Your task to perform on an android device: Clear all items from cart on ebay. Add sony triple a to the cart on ebay Image 0: 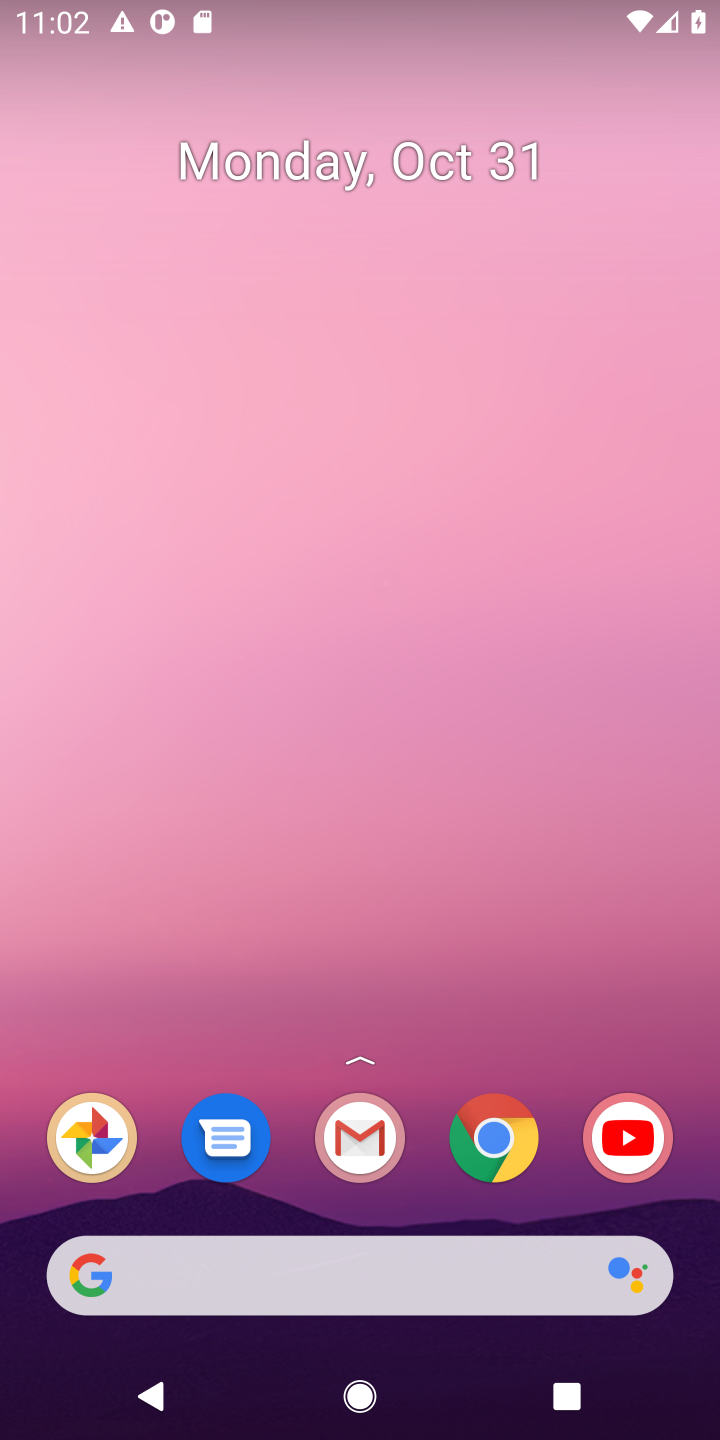
Step 0: press home button
Your task to perform on an android device: Clear all items from cart on ebay. Add sony triple a to the cart on ebay Image 1: 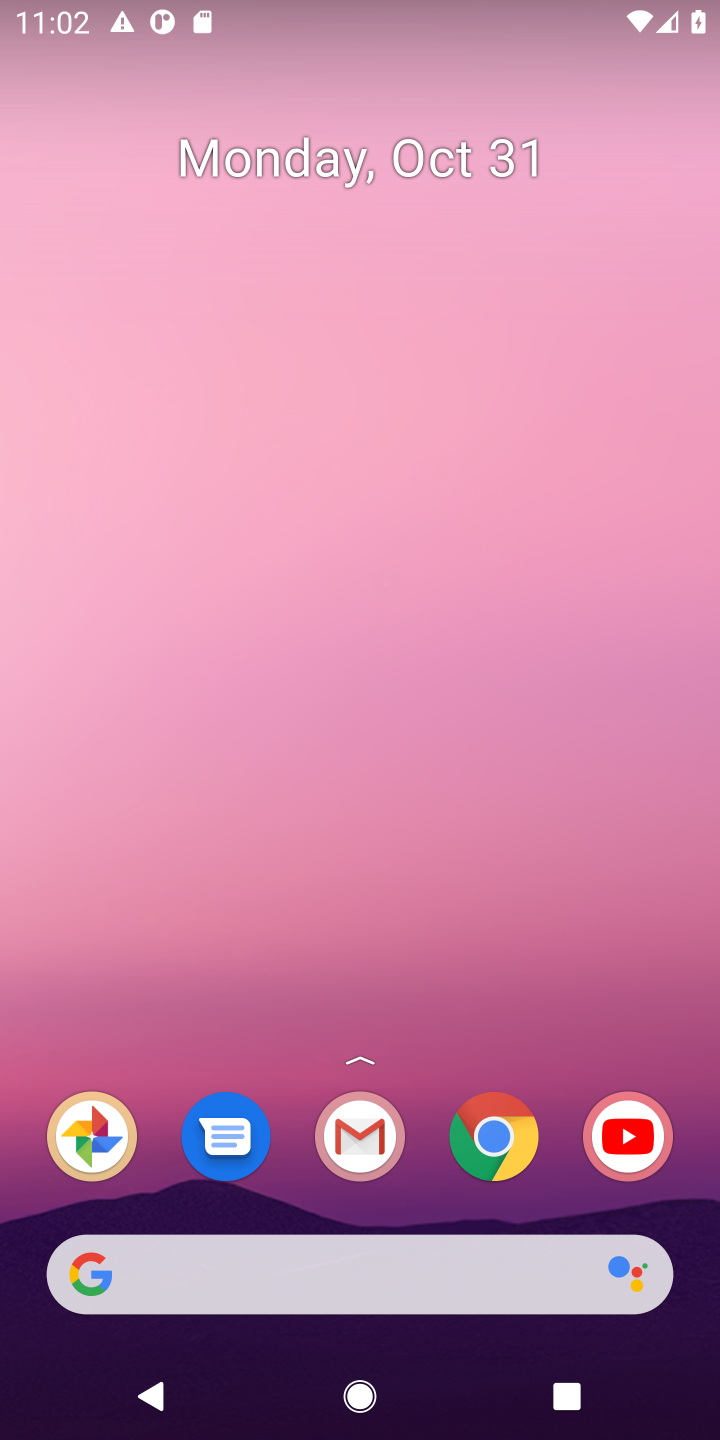
Step 1: click (136, 1269)
Your task to perform on an android device: Clear all items from cart on ebay. Add sony triple a to the cart on ebay Image 2: 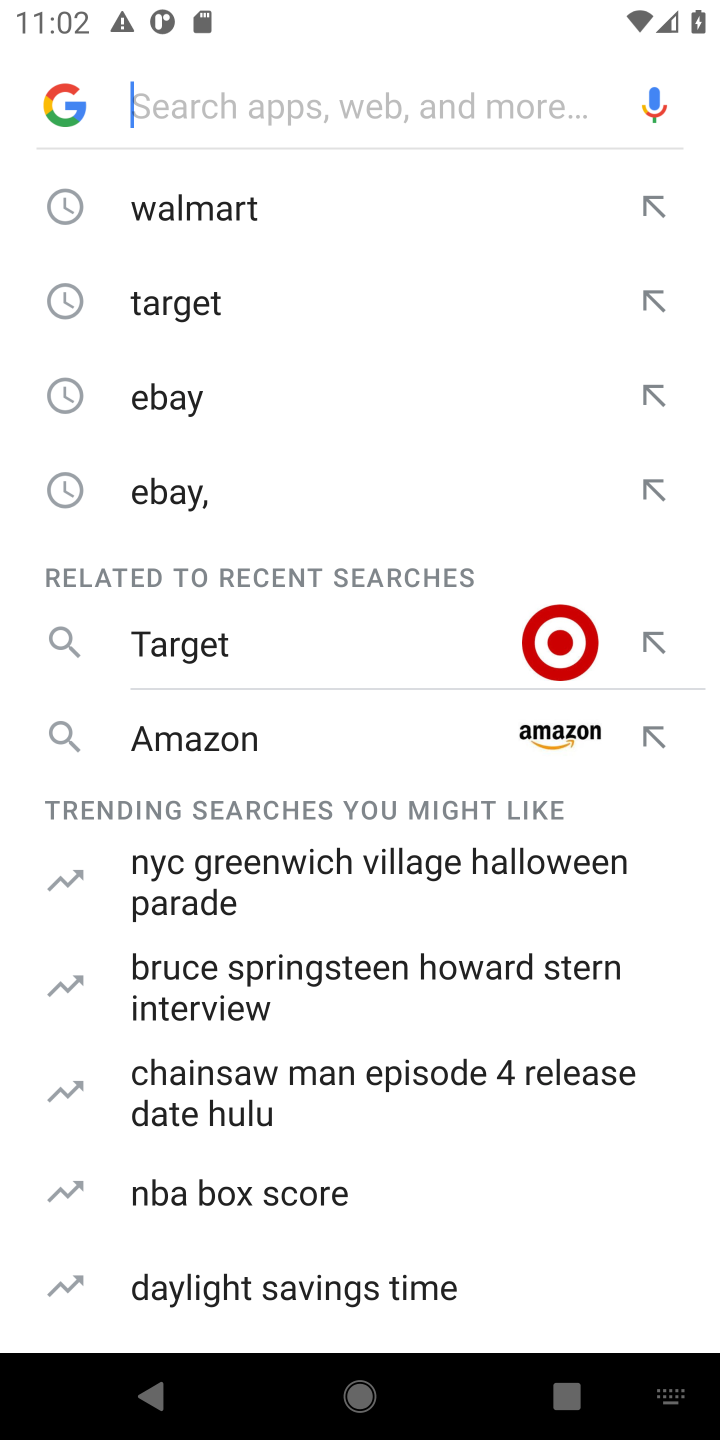
Step 2: press enter
Your task to perform on an android device: Clear all items from cart on ebay. Add sony triple a to the cart on ebay Image 3: 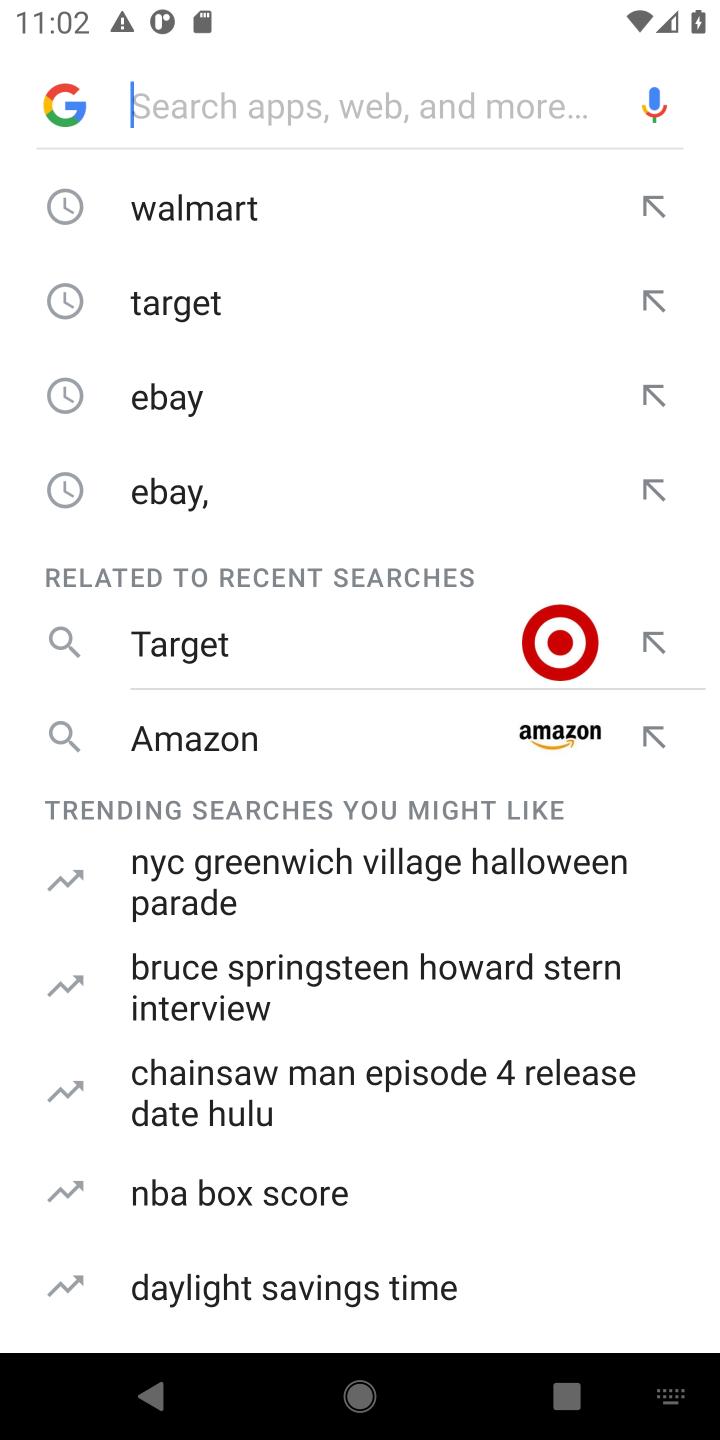
Step 3: type "ebay"
Your task to perform on an android device: Clear all items from cart on ebay. Add sony triple a to the cart on ebay Image 4: 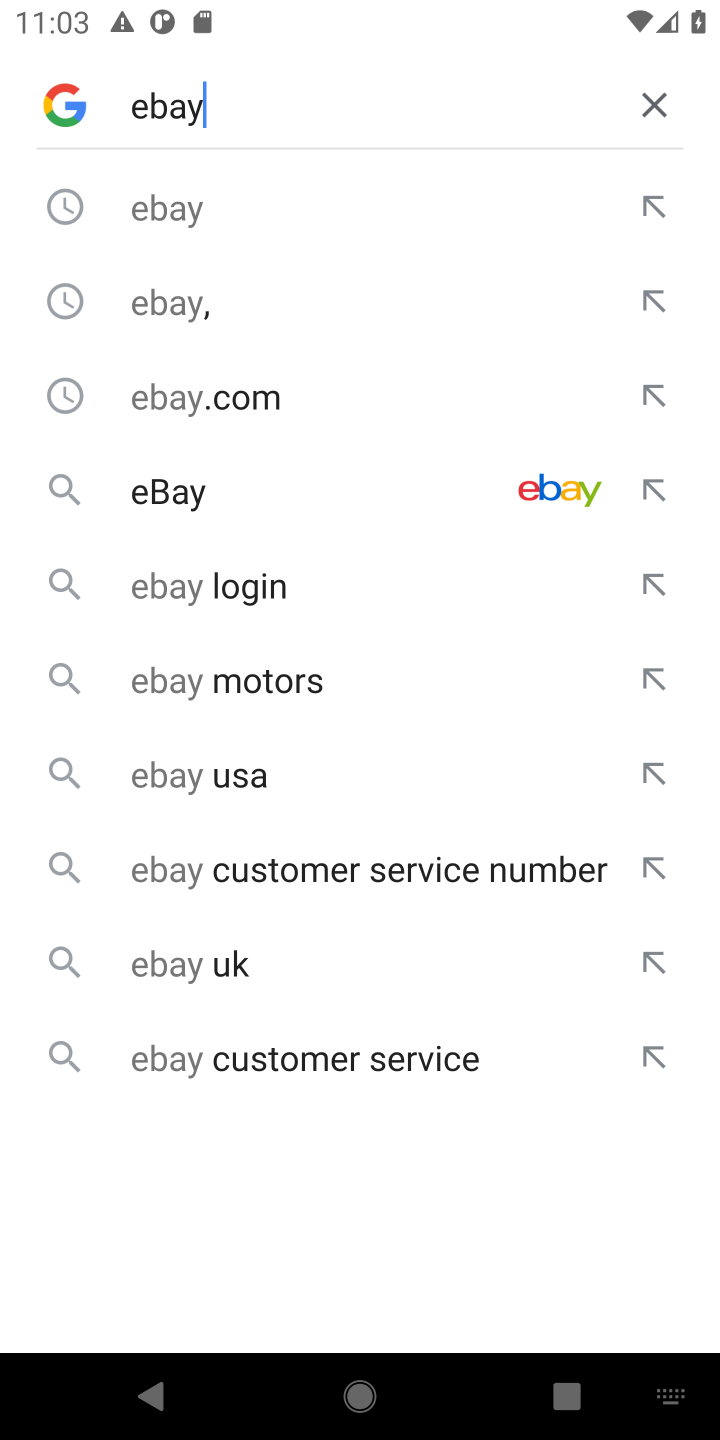
Step 4: press enter
Your task to perform on an android device: Clear all items from cart on ebay. Add sony triple a to the cart on ebay Image 5: 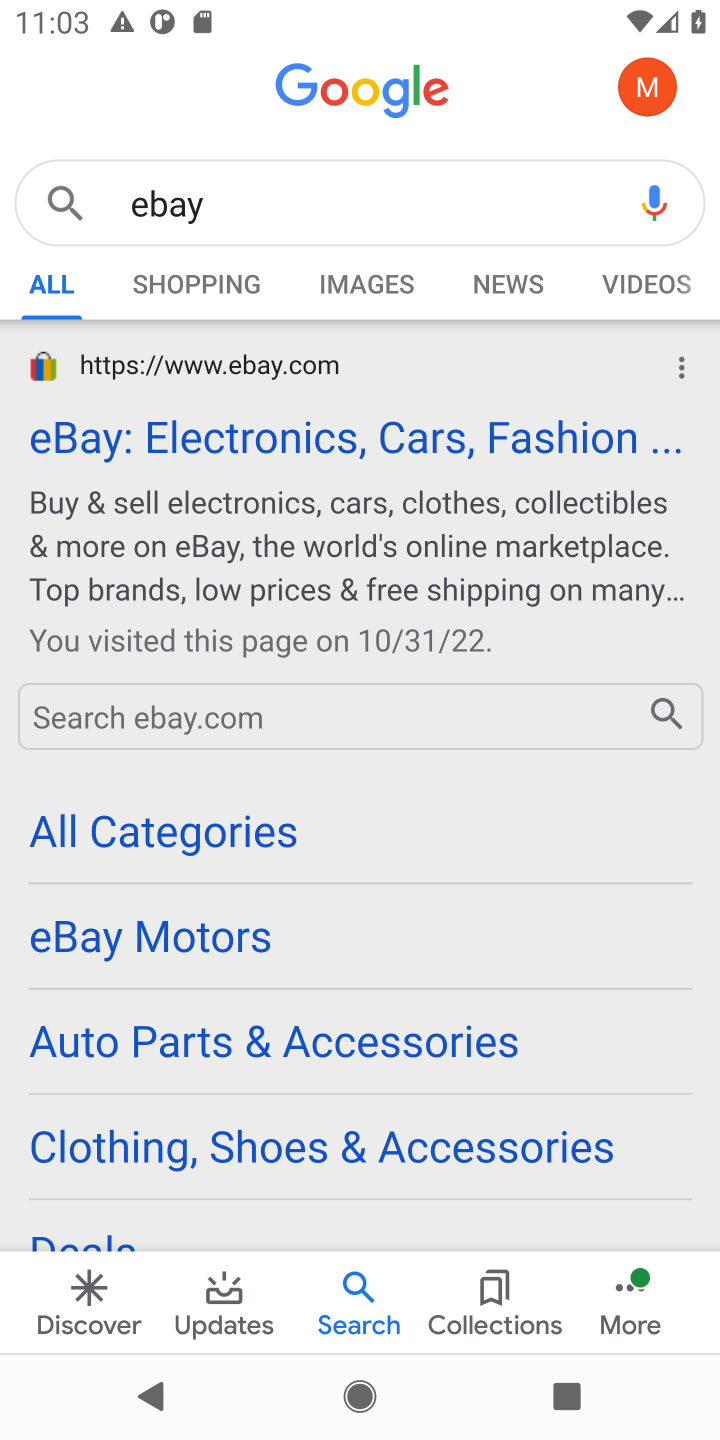
Step 5: click (199, 435)
Your task to perform on an android device: Clear all items from cart on ebay. Add sony triple a to the cart on ebay Image 6: 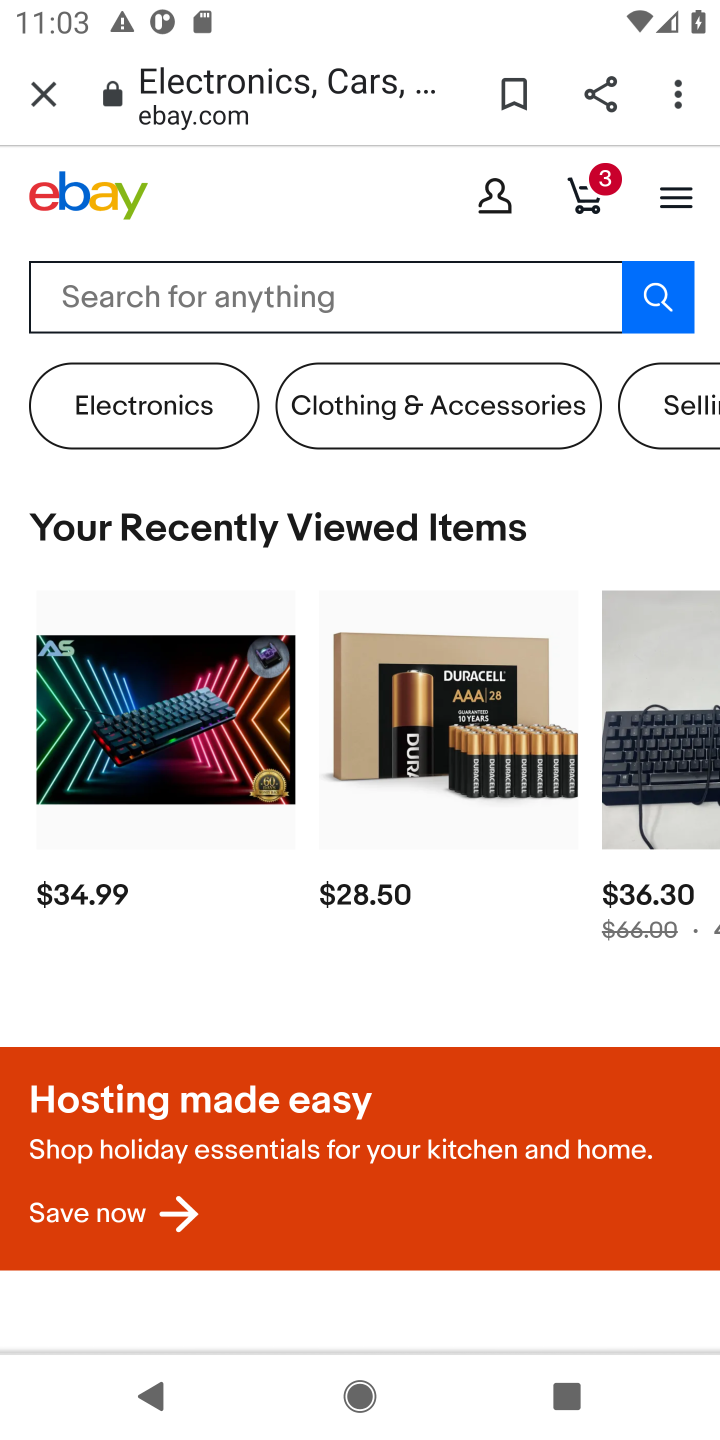
Step 6: click (608, 184)
Your task to perform on an android device: Clear all items from cart on ebay. Add sony triple a to the cart on ebay Image 7: 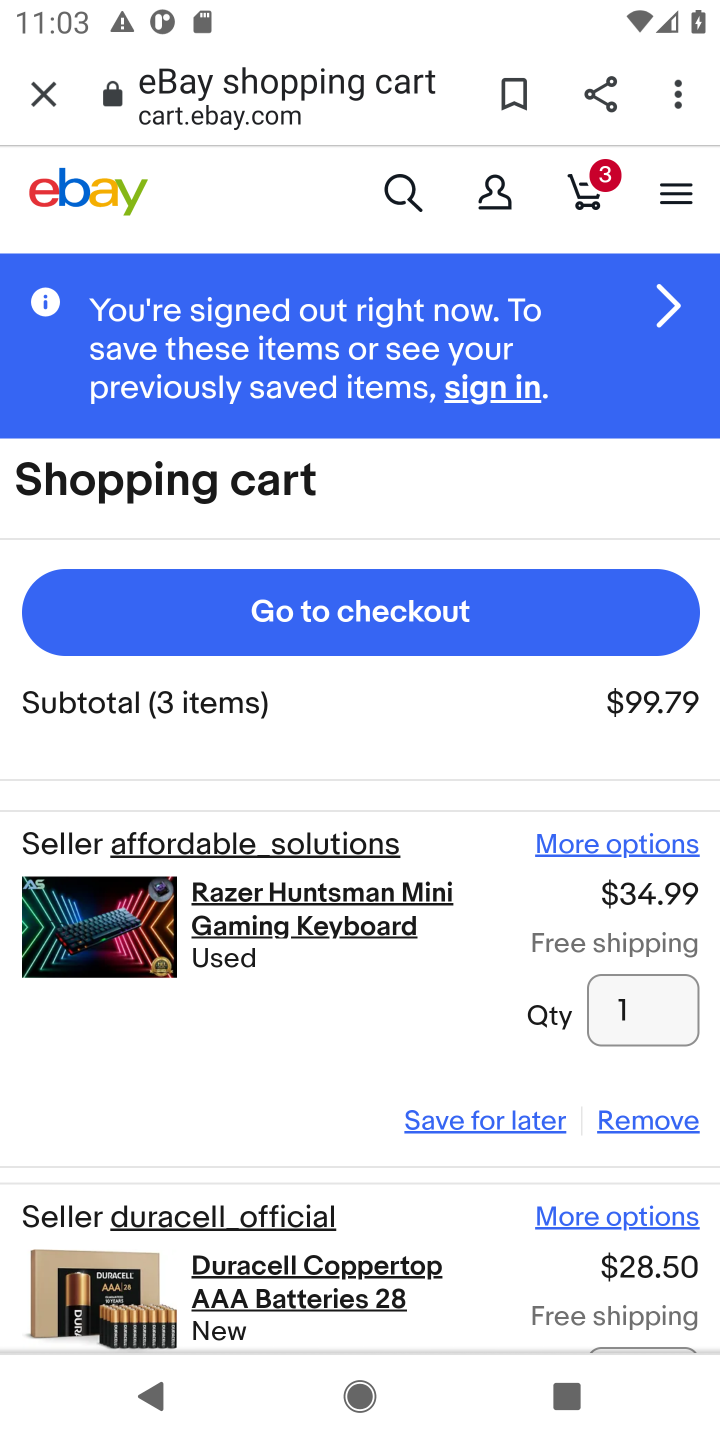
Step 7: click (633, 1123)
Your task to perform on an android device: Clear all items from cart on ebay. Add sony triple a to the cart on ebay Image 8: 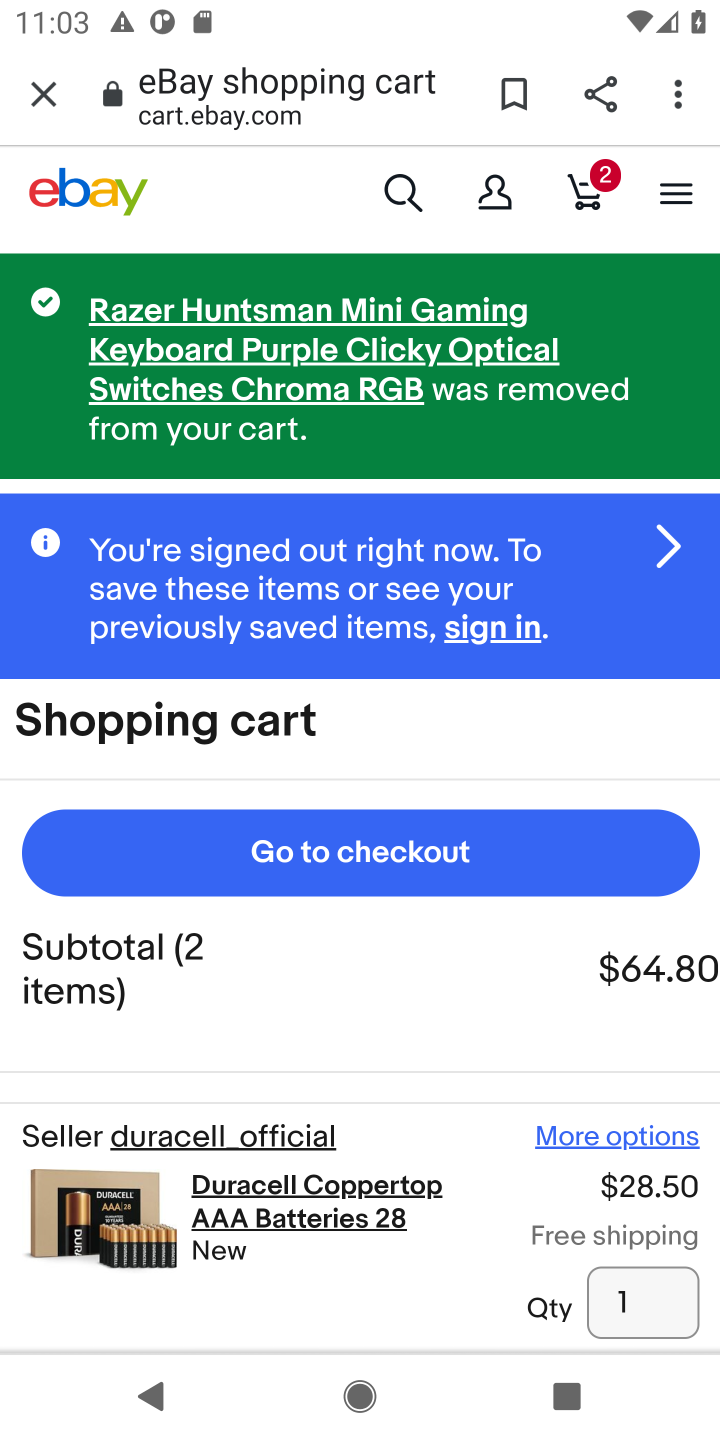
Step 8: drag from (407, 1280) to (438, 646)
Your task to perform on an android device: Clear all items from cart on ebay. Add sony triple a to the cart on ebay Image 9: 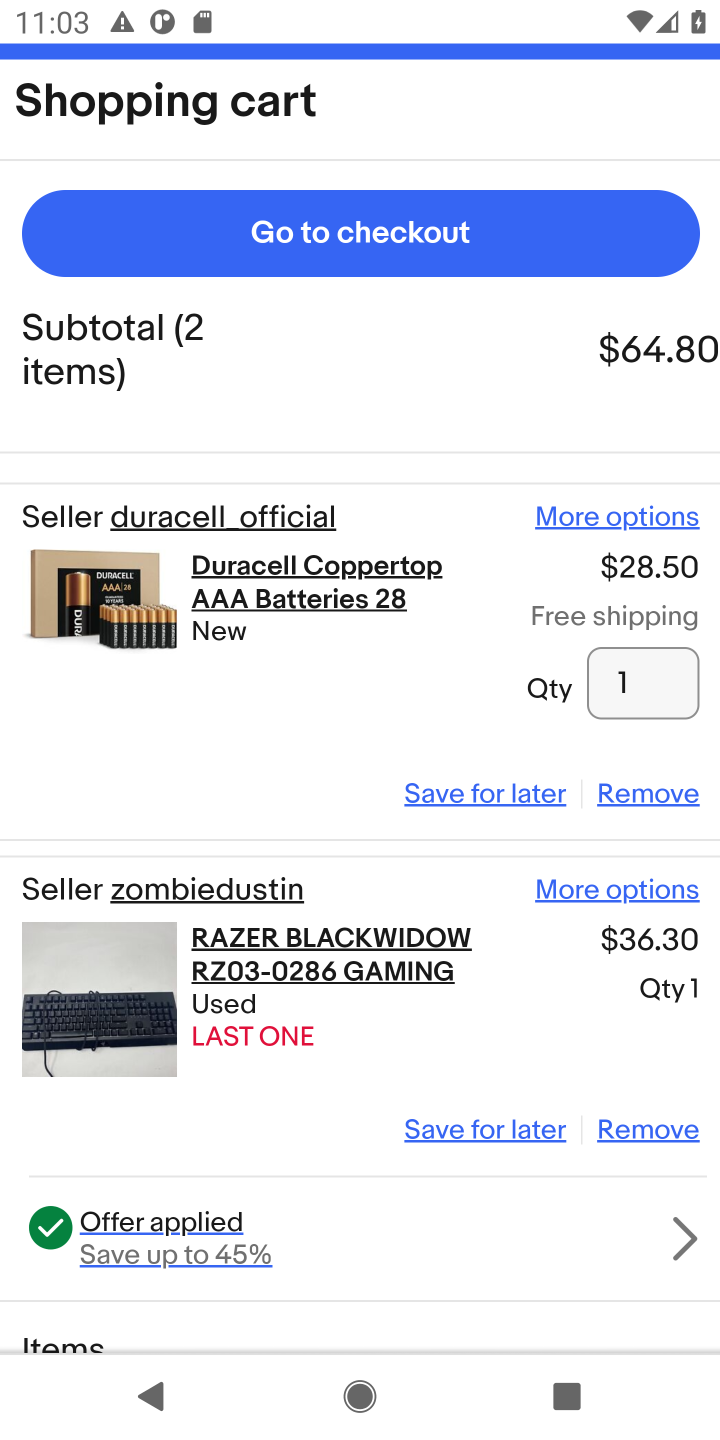
Step 9: click (642, 803)
Your task to perform on an android device: Clear all items from cart on ebay. Add sony triple a to the cart on ebay Image 10: 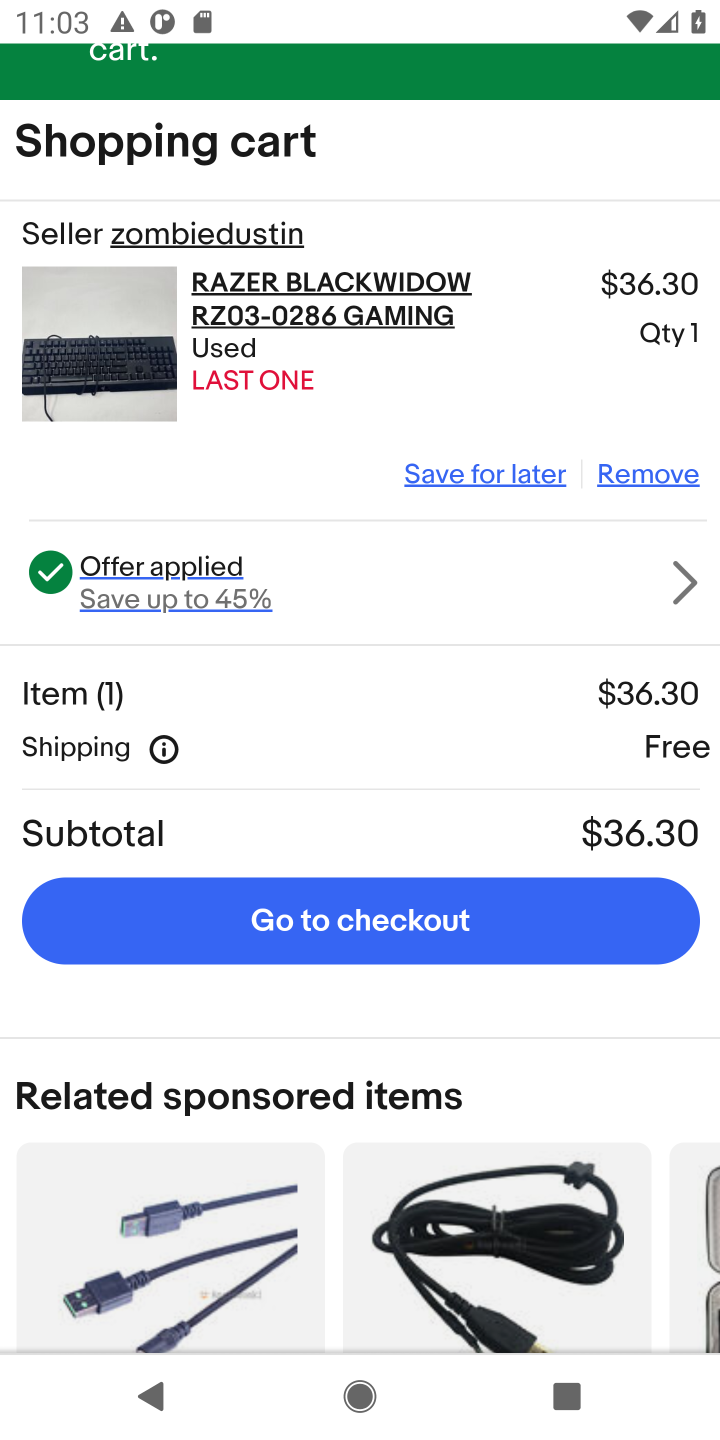
Step 10: click (631, 474)
Your task to perform on an android device: Clear all items from cart on ebay. Add sony triple a to the cart on ebay Image 11: 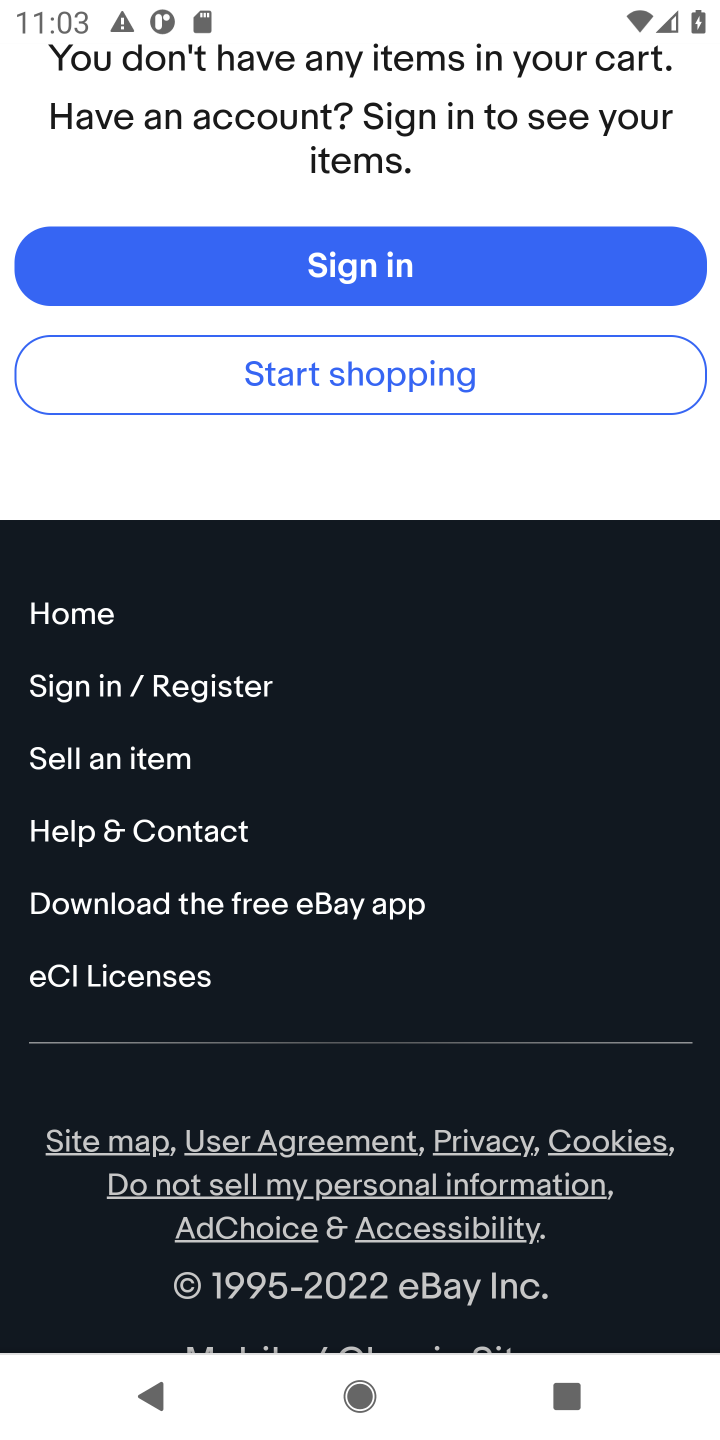
Step 11: drag from (487, 148) to (435, 995)
Your task to perform on an android device: Clear all items from cart on ebay. Add sony triple a to the cart on ebay Image 12: 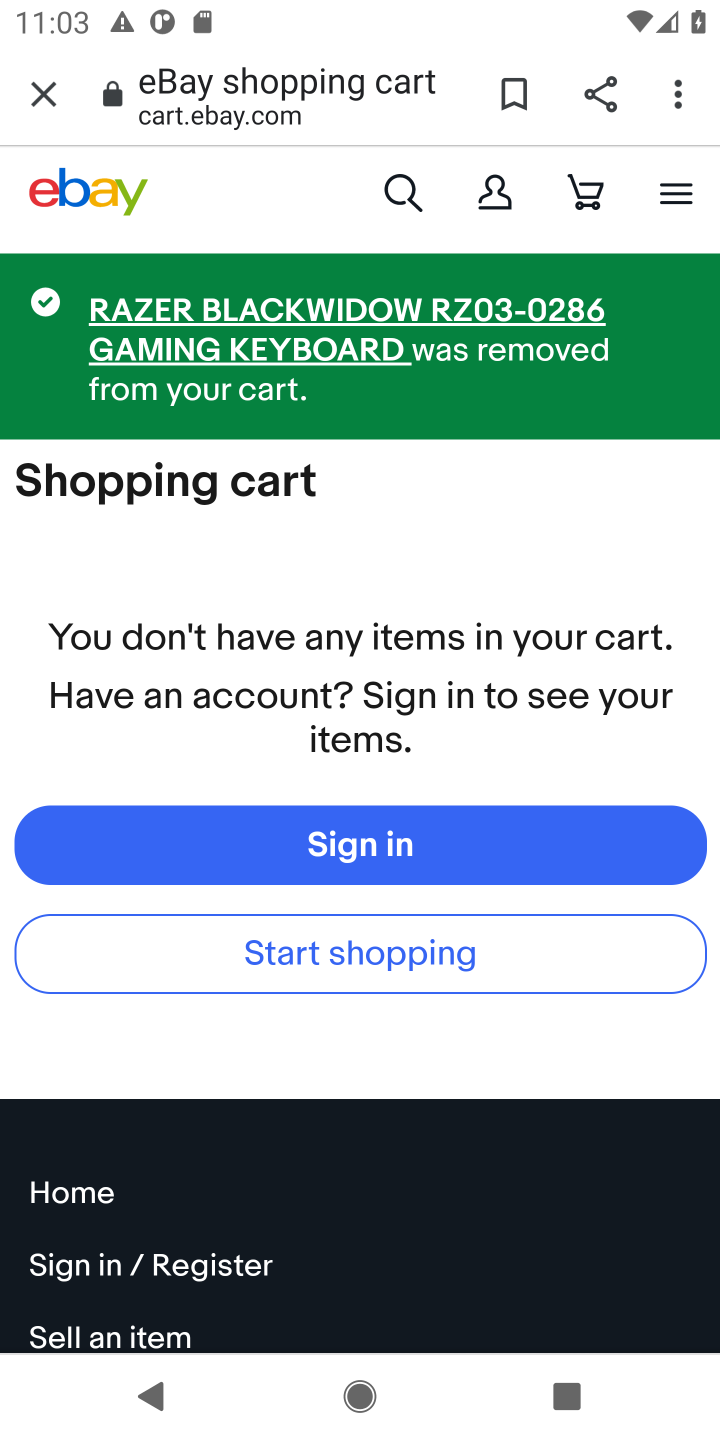
Step 12: click (399, 187)
Your task to perform on an android device: Clear all items from cart on ebay. Add sony triple a to the cart on ebay Image 13: 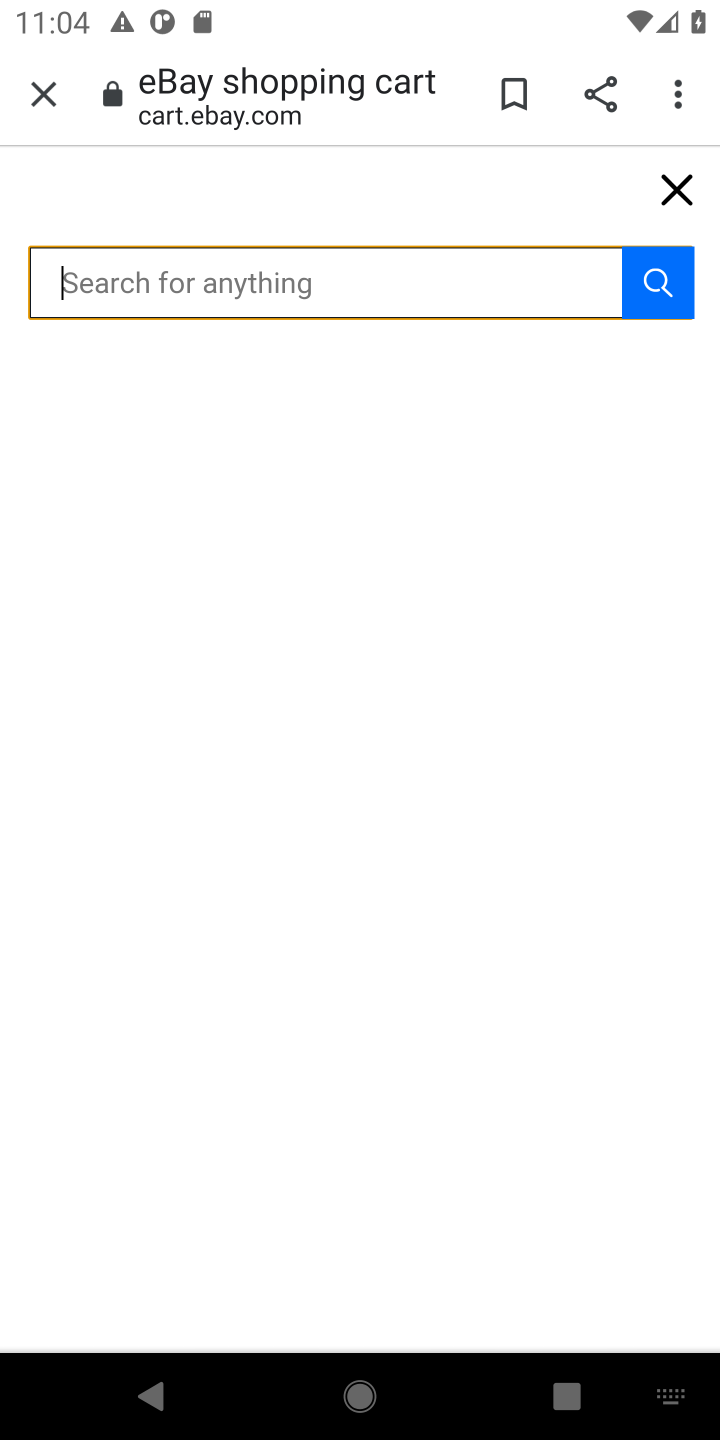
Step 13: type " sony triple a"
Your task to perform on an android device: Clear all items from cart on ebay. Add sony triple a to the cart on ebay Image 14: 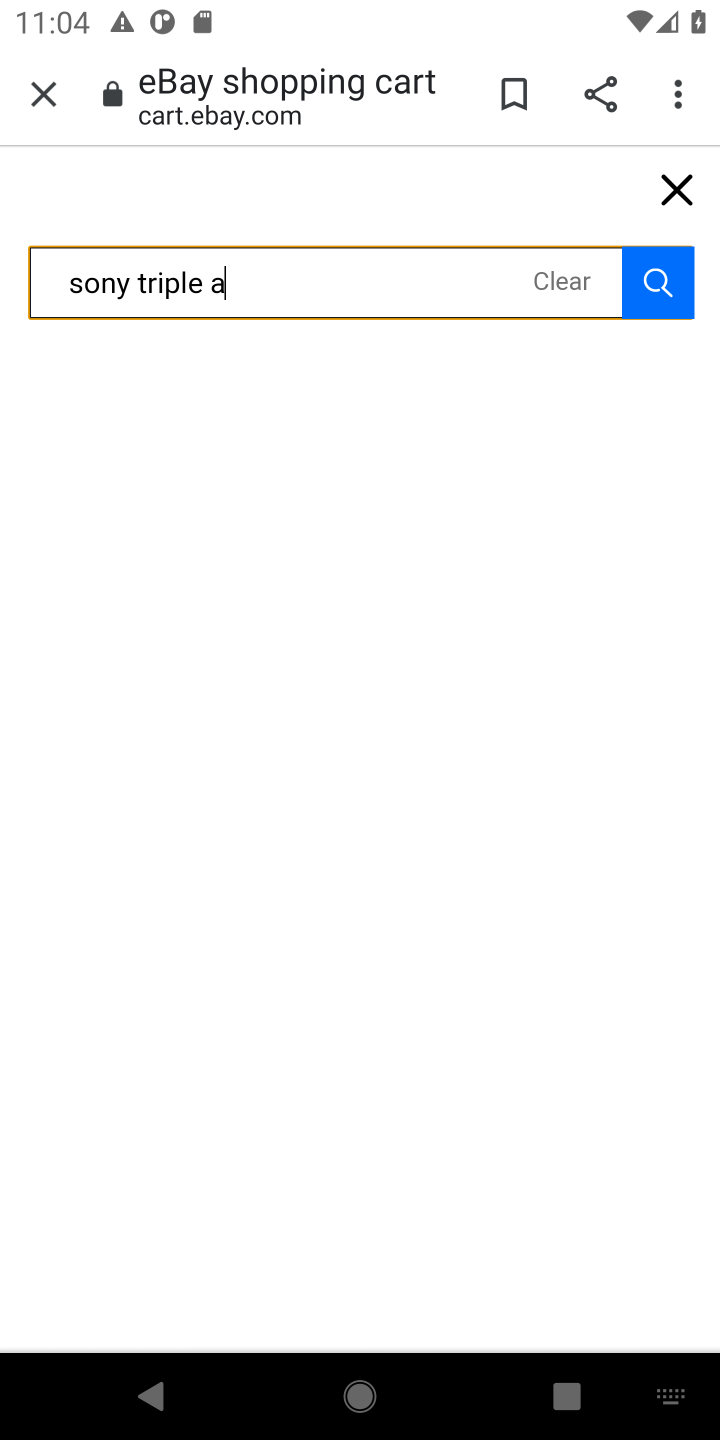
Step 14: press enter
Your task to perform on an android device: Clear all items from cart on ebay. Add sony triple a to the cart on ebay Image 15: 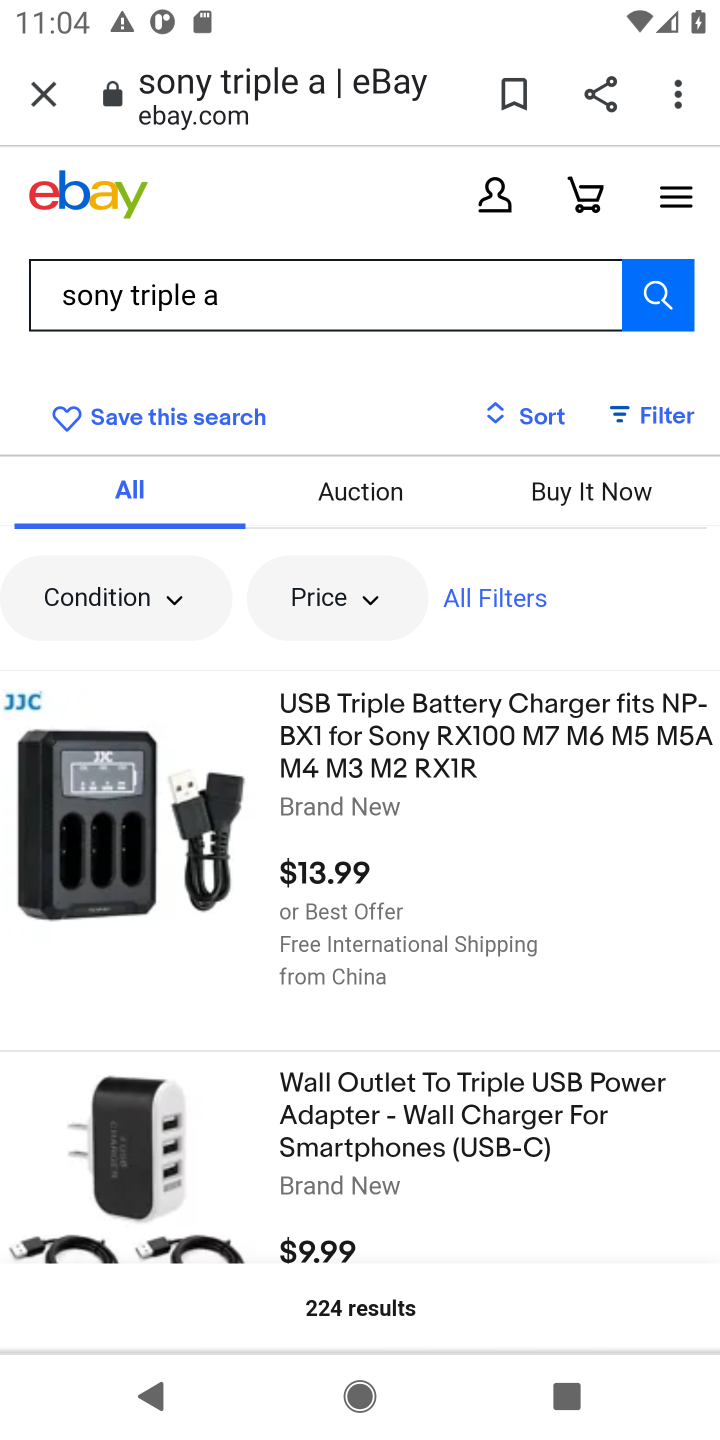
Step 15: drag from (478, 1076) to (481, 773)
Your task to perform on an android device: Clear all items from cart on ebay. Add sony triple a to the cart on ebay Image 16: 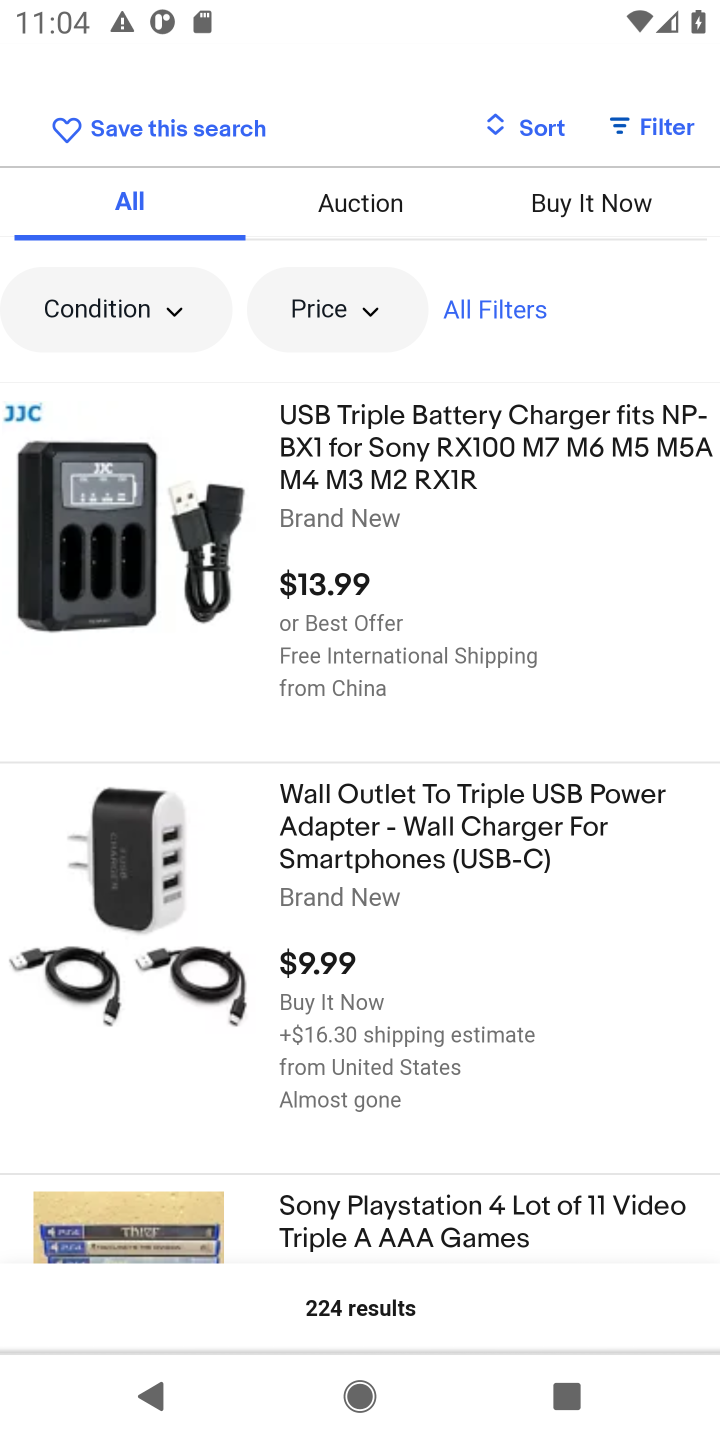
Step 16: click (413, 423)
Your task to perform on an android device: Clear all items from cart on ebay. Add sony triple a to the cart on ebay Image 17: 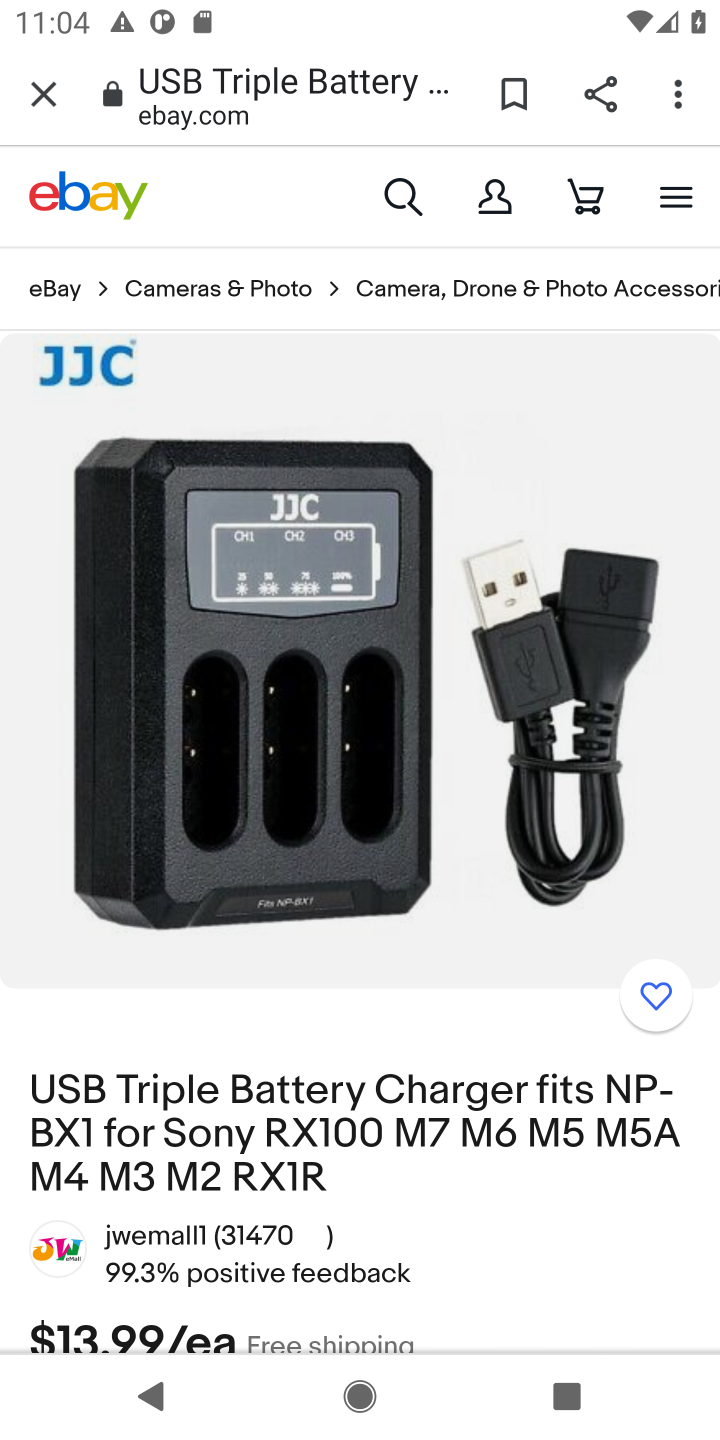
Step 17: drag from (395, 1076) to (408, 529)
Your task to perform on an android device: Clear all items from cart on ebay. Add sony triple a to the cart on ebay Image 18: 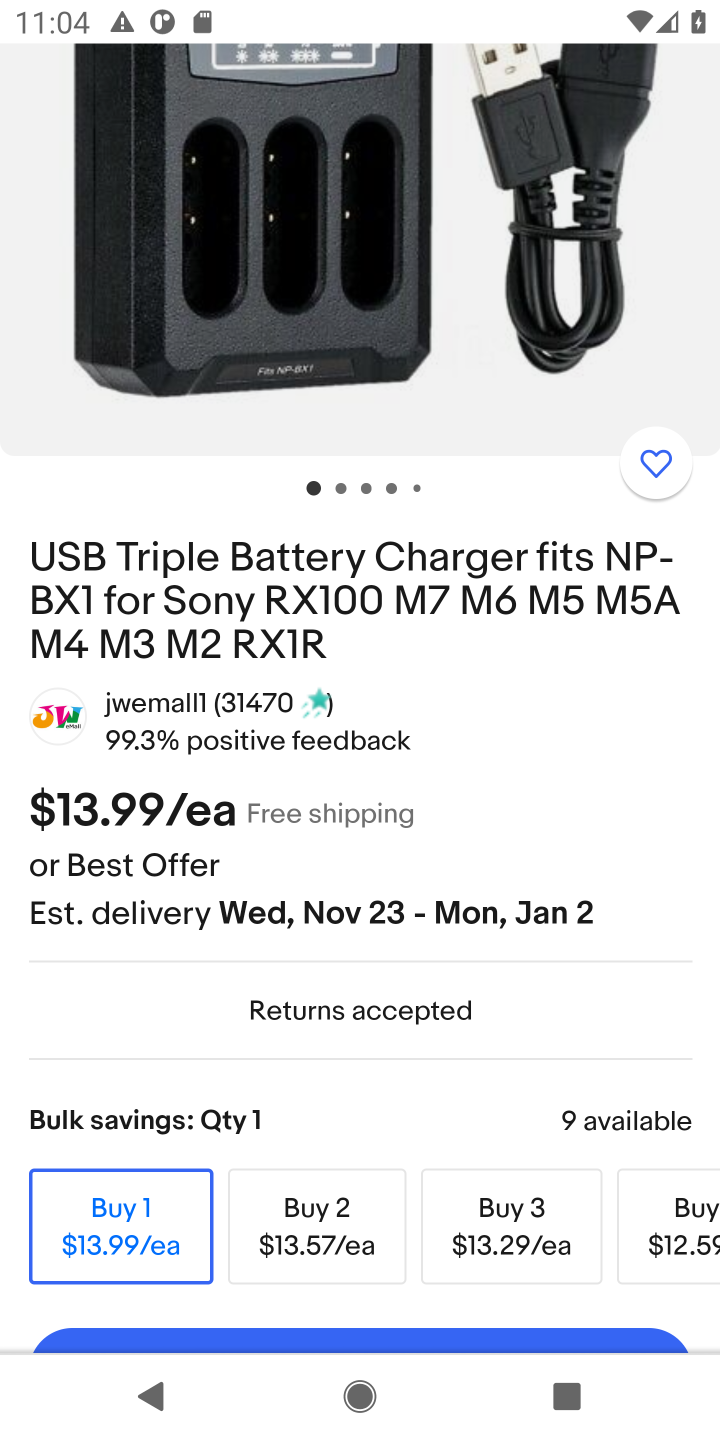
Step 18: drag from (346, 977) to (361, 514)
Your task to perform on an android device: Clear all items from cart on ebay. Add sony triple a to the cart on ebay Image 19: 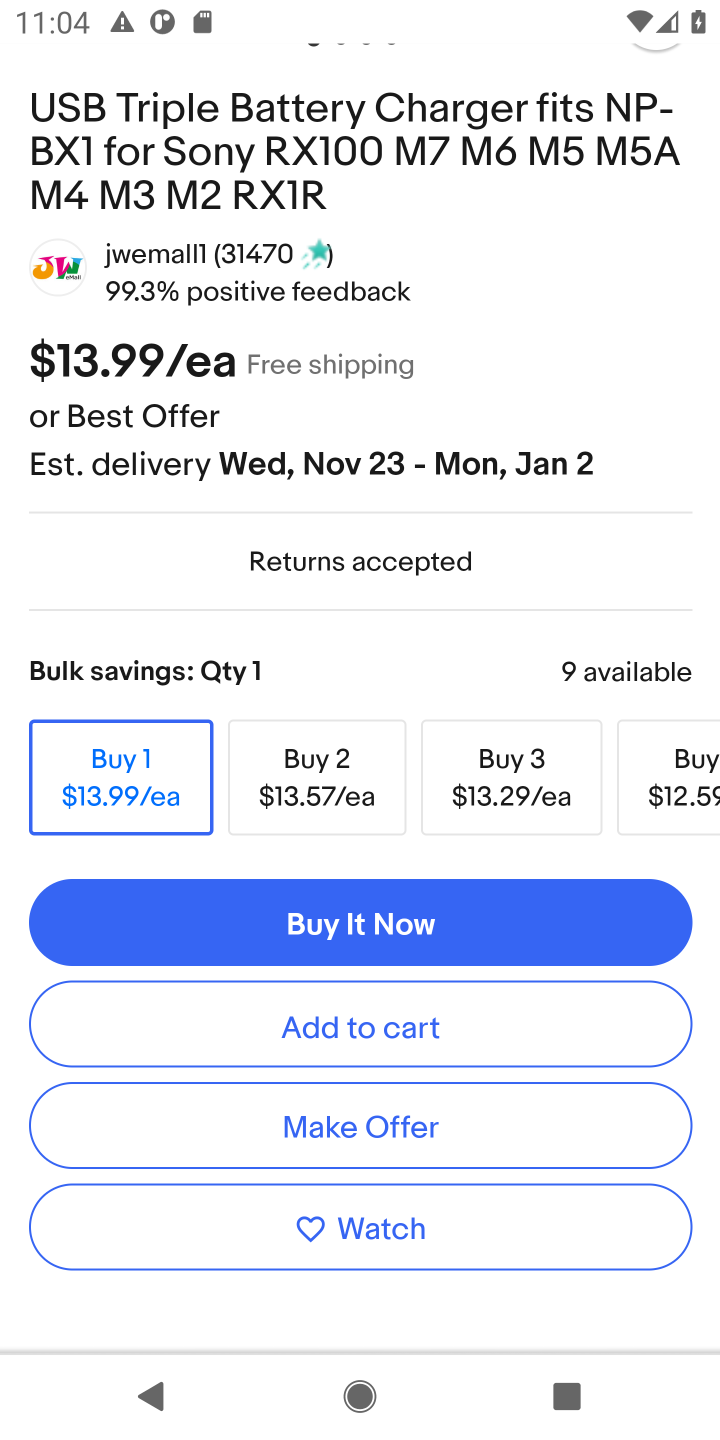
Step 19: click (515, 1027)
Your task to perform on an android device: Clear all items from cart on ebay. Add sony triple a to the cart on ebay Image 20: 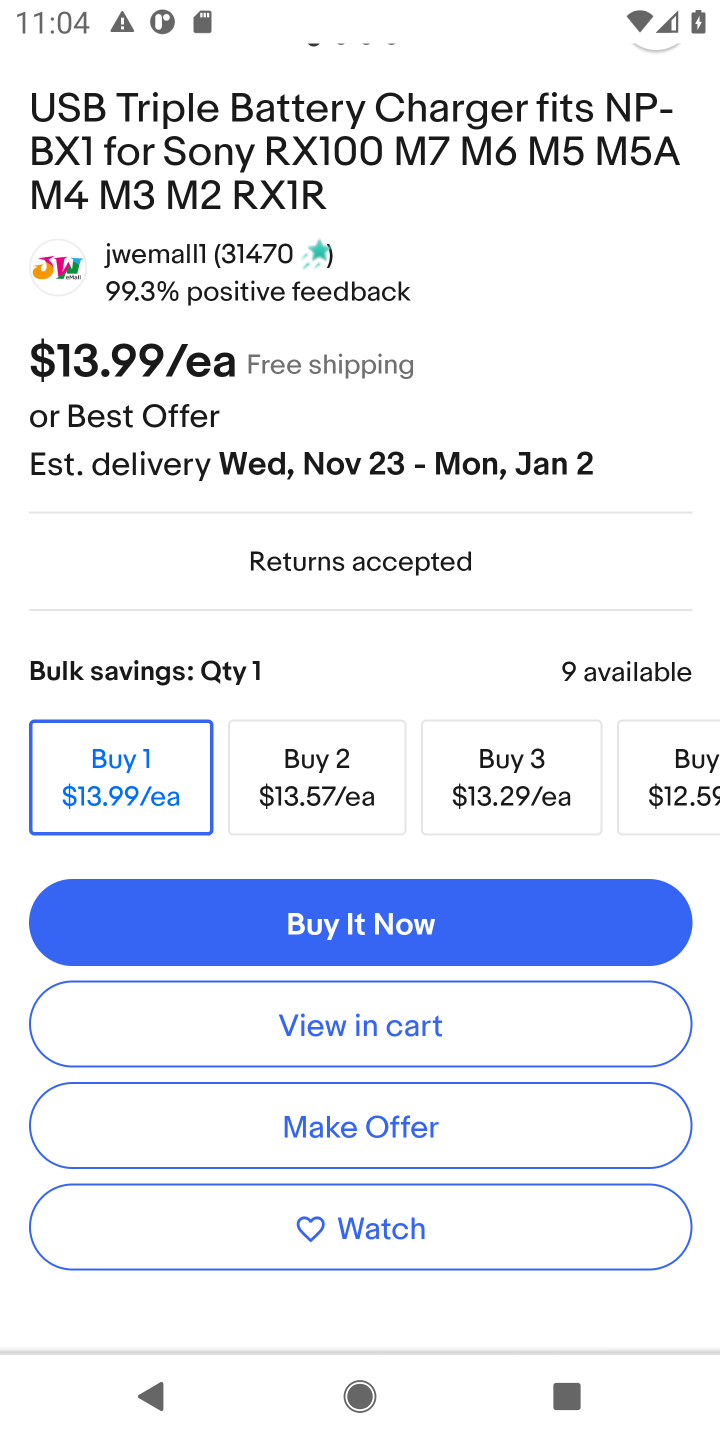
Step 20: task complete